Your task to perform on an android device: Open Google Chrome and click the shortcut for Amazon.com Image 0: 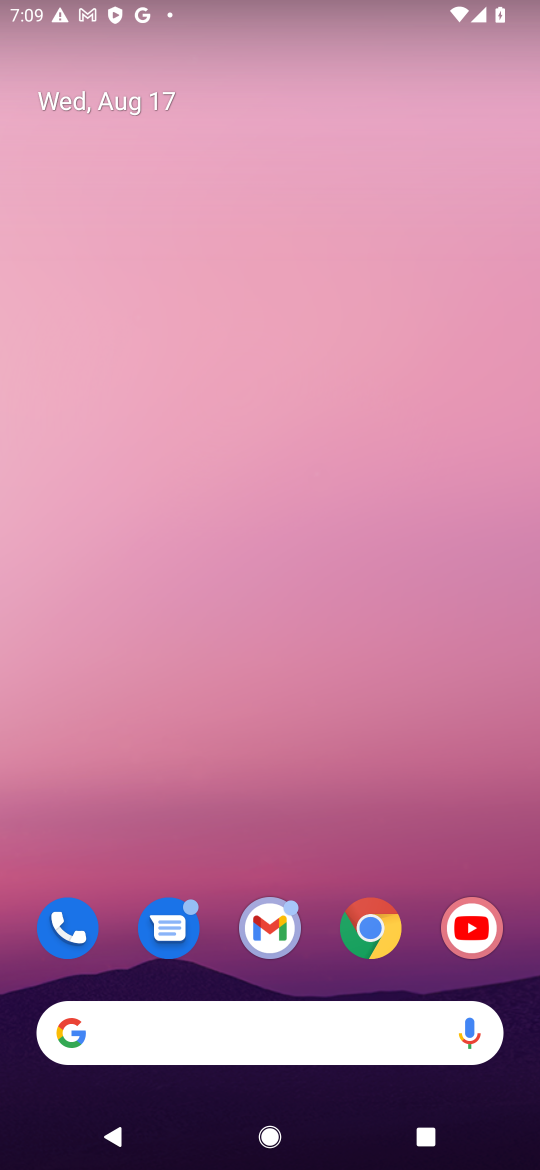
Step 0: click (354, 957)
Your task to perform on an android device: Open Google Chrome and click the shortcut for Amazon.com Image 1: 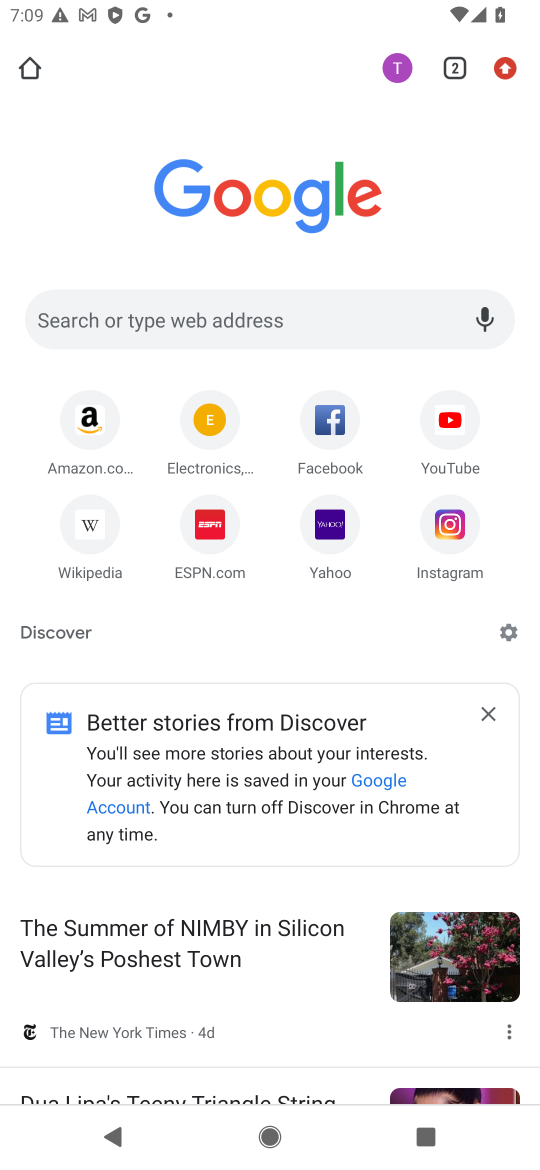
Step 1: click (86, 424)
Your task to perform on an android device: Open Google Chrome and click the shortcut for Amazon.com Image 2: 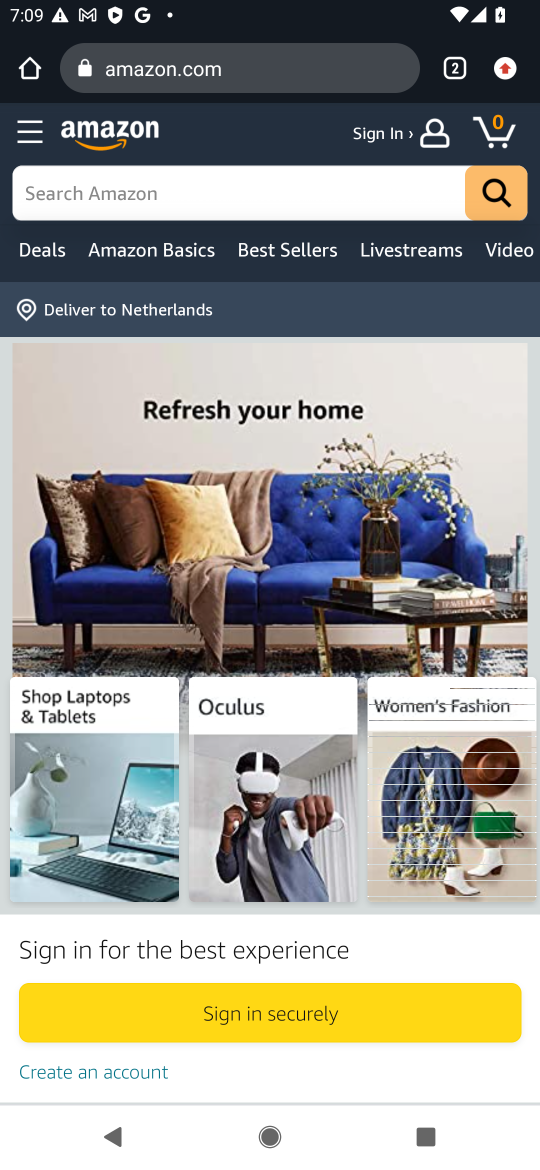
Step 2: task complete